Your task to perform on an android device: What's on my calendar today? Image 0: 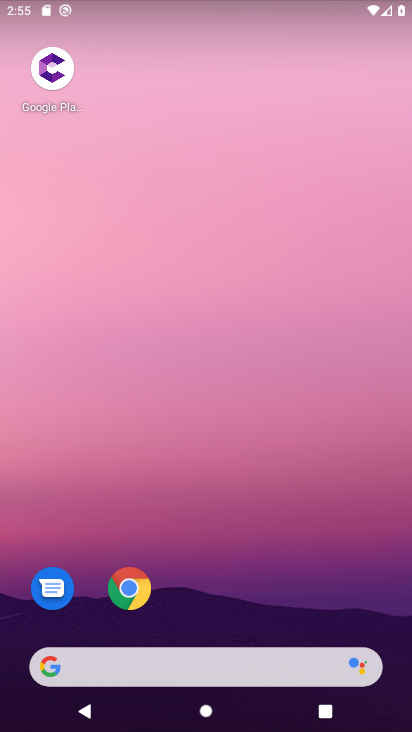
Step 0: drag from (225, 635) to (89, 47)
Your task to perform on an android device: What's on my calendar today? Image 1: 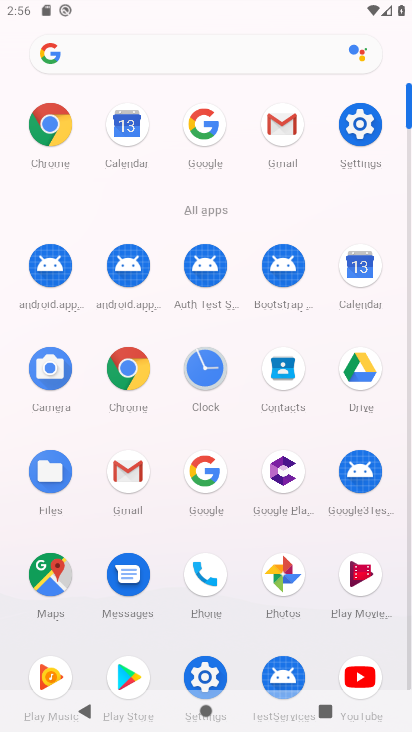
Step 1: click (353, 271)
Your task to perform on an android device: What's on my calendar today? Image 2: 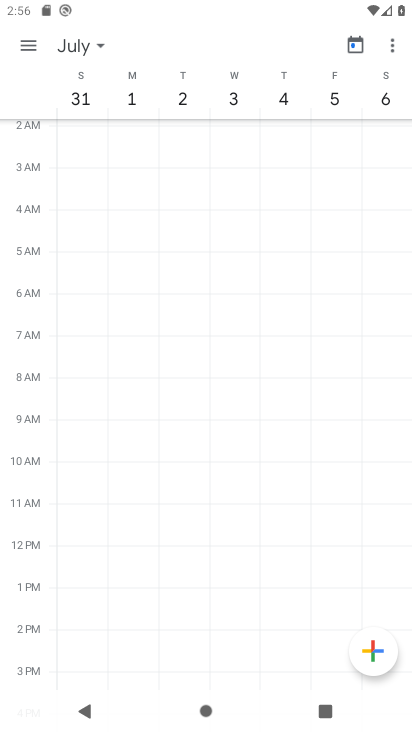
Step 2: click (363, 37)
Your task to perform on an android device: What's on my calendar today? Image 3: 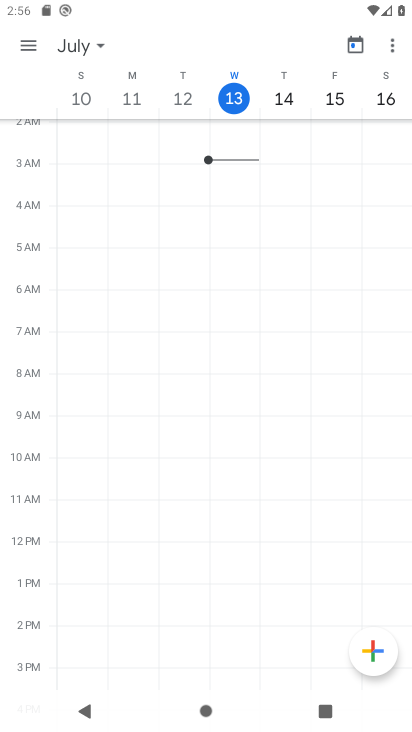
Step 3: click (229, 91)
Your task to perform on an android device: What's on my calendar today? Image 4: 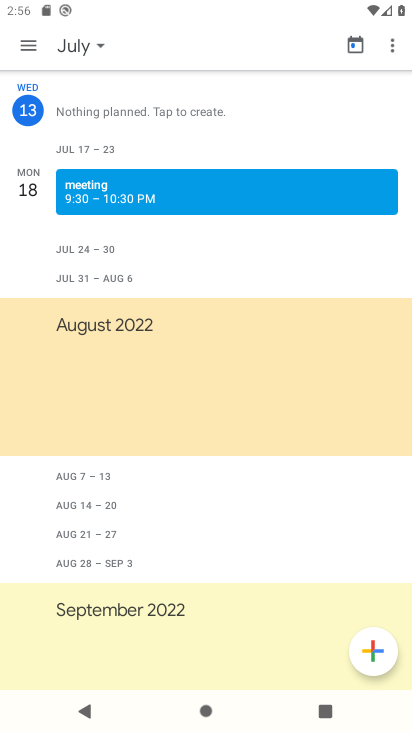
Step 4: task complete